Your task to perform on an android device: Open calendar and show me the third week of next month Image 0: 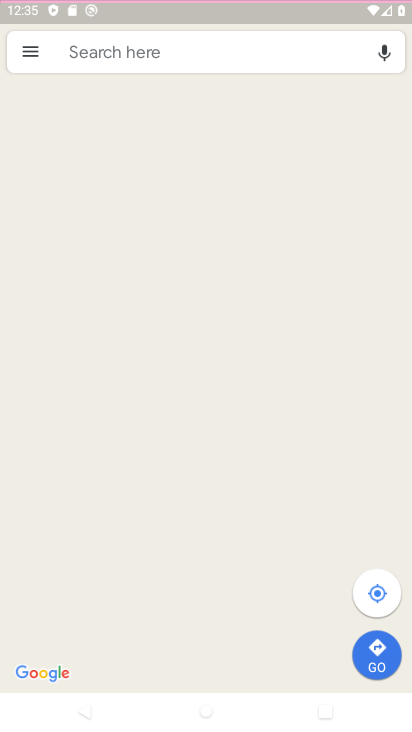
Step 0: drag from (178, 567) to (17, 622)
Your task to perform on an android device: Open calendar and show me the third week of next month Image 1: 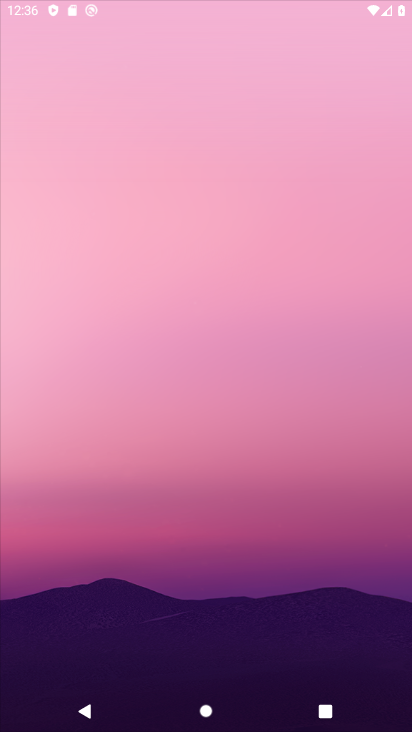
Step 1: press home button
Your task to perform on an android device: Open calendar and show me the third week of next month Image 2: 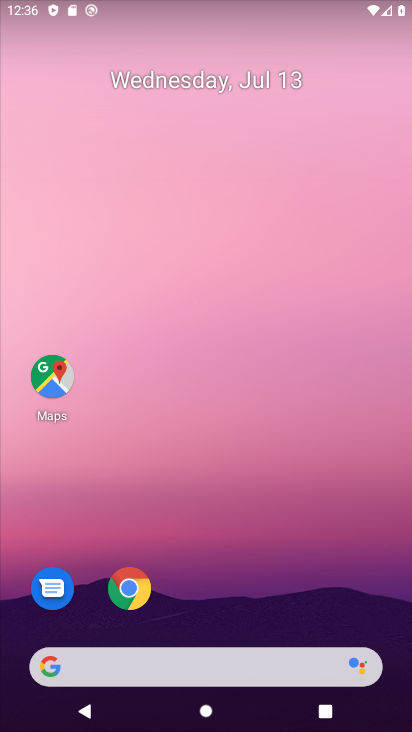
Step 2: click (126, 592)
Your task to perform on an android device: Open calendar and show me the third week of next month Image 3: 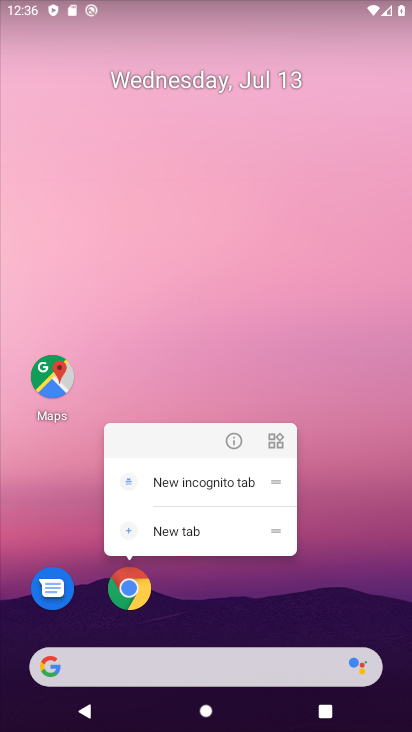
Step 3: click (225, 445)
Your task to perform on an android device: Open calendar and show me the third week of next month Image 4: 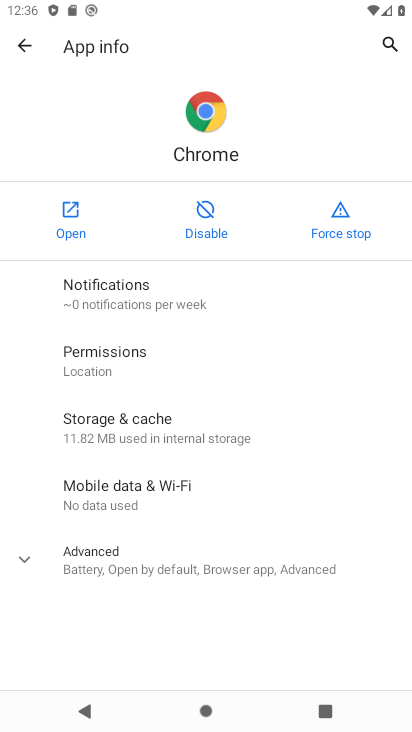
Step 4: click (67, 237)
Your task to perform on an android device: Open calendar and show me the third week of next month Image 5: 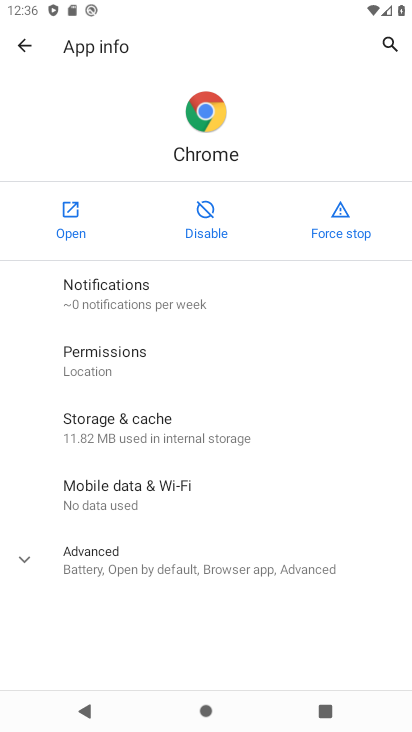
Step 5: click (67, 237)
Your task to perform on an android device: Open calendar and show me the third week of next month Image 6: 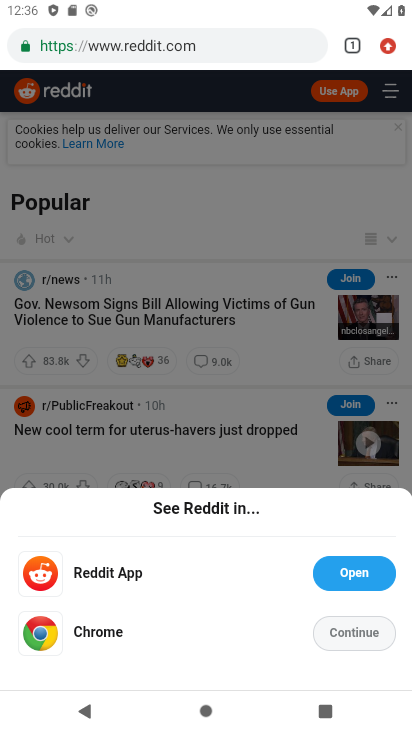
Step 6: click (358, 51)
Your task to perform on an android device: Open calendar and show me the third week of next month Image 7: 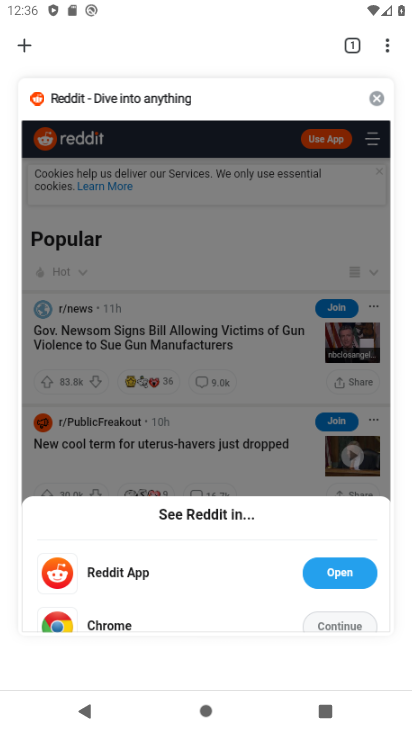
Step 7: click (25, 47)
Your task to perform on an android device: Open calendar and show me the third week of next month Image 8: 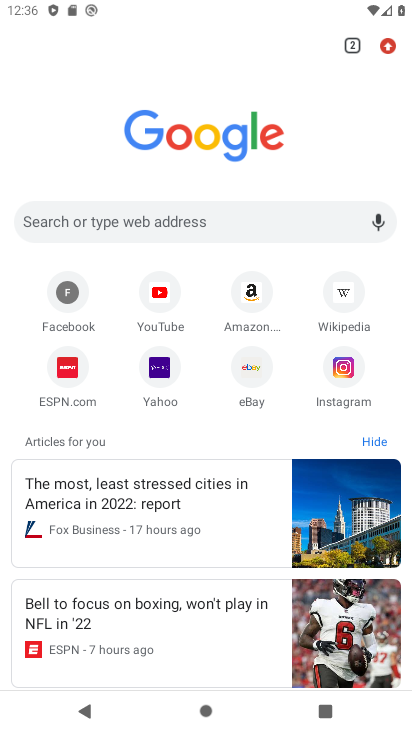
Step 8: click (139, 220)
Your task to perform on an android device: Open calendar and show me the third week of next month Image 9: 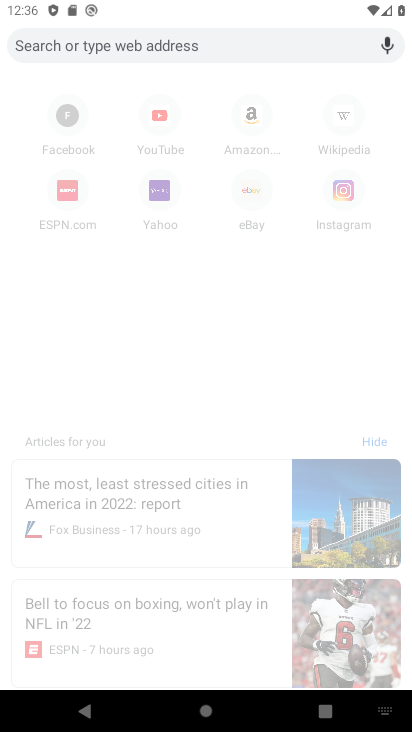
Step 9: press home button
Your task to perform on an android device: Open calendar and show me the third week of next month Image 10: 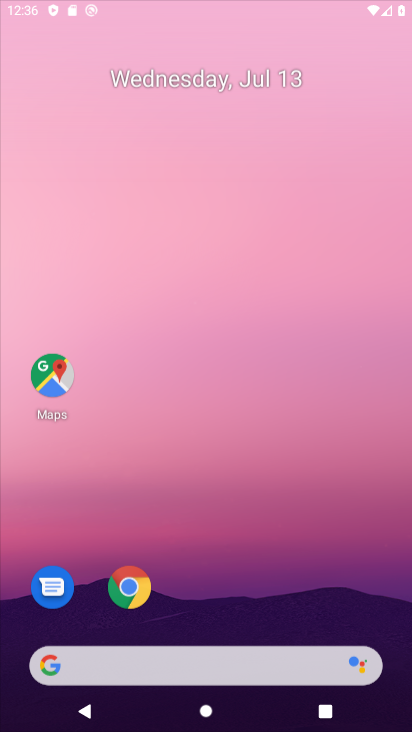
Step 10: drag from (191, 623) to (306, 9)
Your task to perform on an android device: Open calendar and show me the third week of next month Image 11: 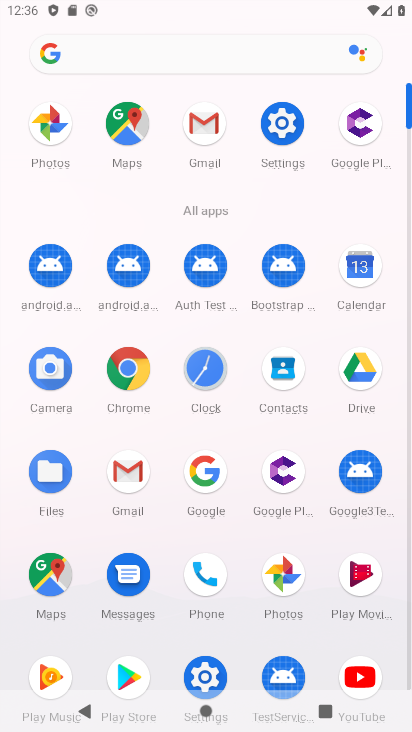
Step 11: click (366, 258)
Your task to perform on an android device: Open calendar and show me the third week of next month Image 12: 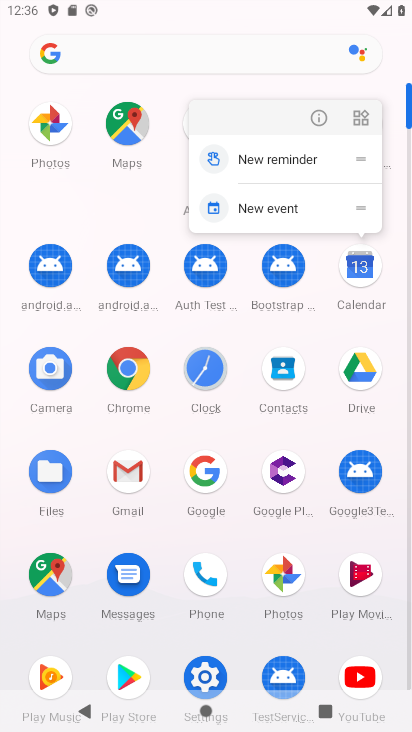
Step 12: click (320, 122)
Your task to perform on an android device: Open calendar and show me the third week of next month Image 13: 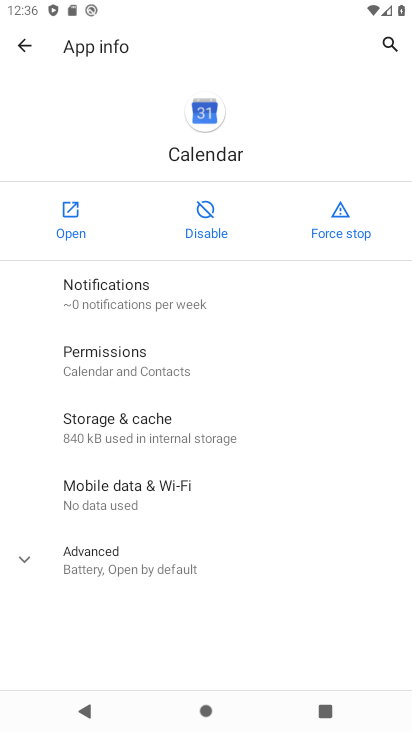
Step 13: click (81, 227)
Your task to perform on an android device: Open calendar and show me the third week of next month Image 14: 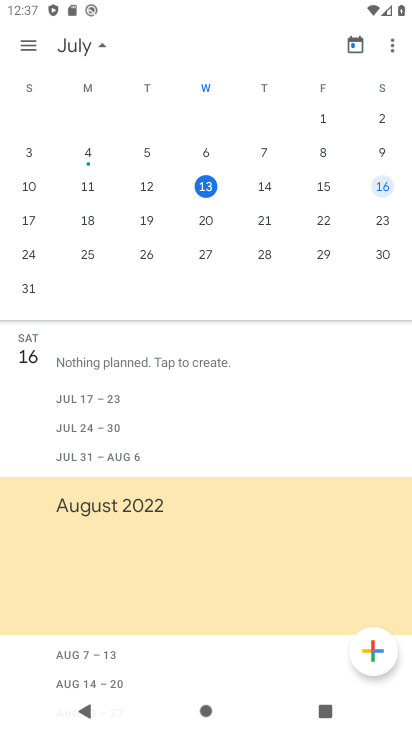
Step 14: drag from (375, 215) to (52, 259)
Your task to perform on an android device: Open calendar and show me the third week of next month Image 15: 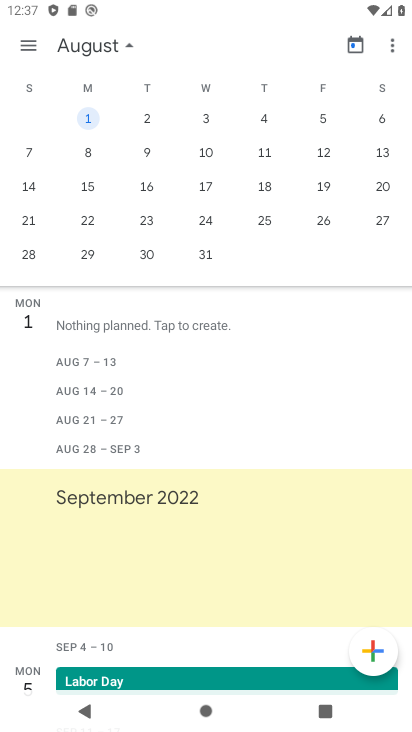
Step 15: drag from (117, 219) to (81, 221)
Your task to perform on an android device: Open calendar and show me the third week of next month Image 16: 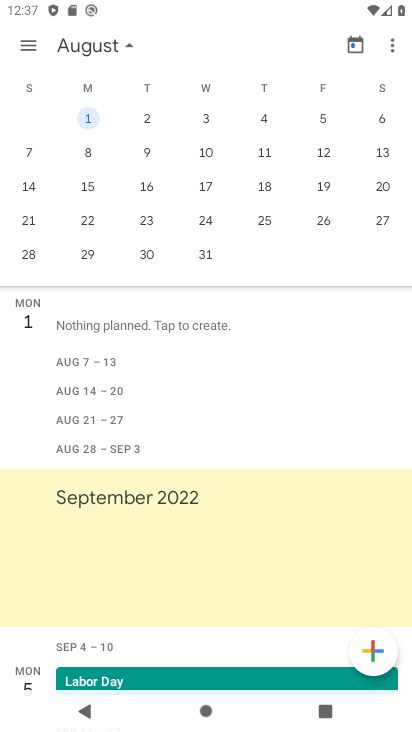
Step 16: click (317, 186)
Your task to perform on an android device: Open calendar and show me the third week of next month Image 17: 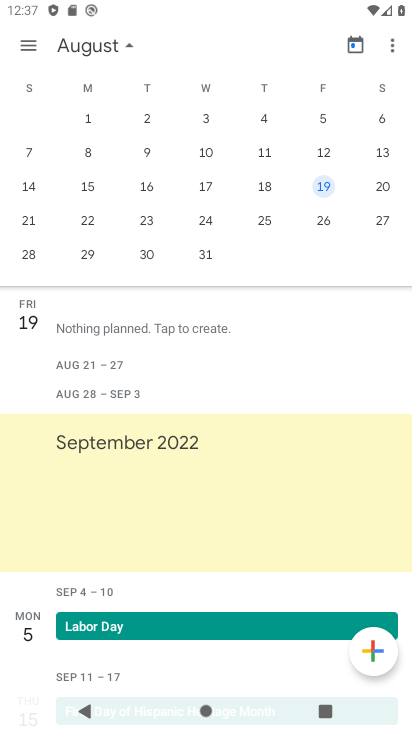
Step 17: task complete